Your task to perform on an android device: Open Google Chrome Image 0: 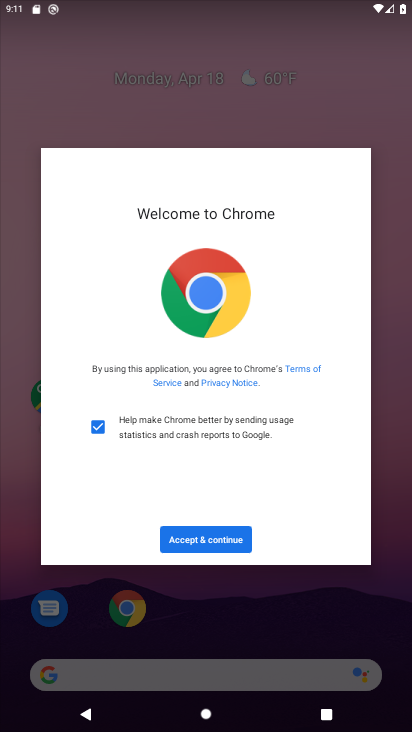
Step 0: press home button
Your task to perform on an android device: Open Google Chrome Image 1: 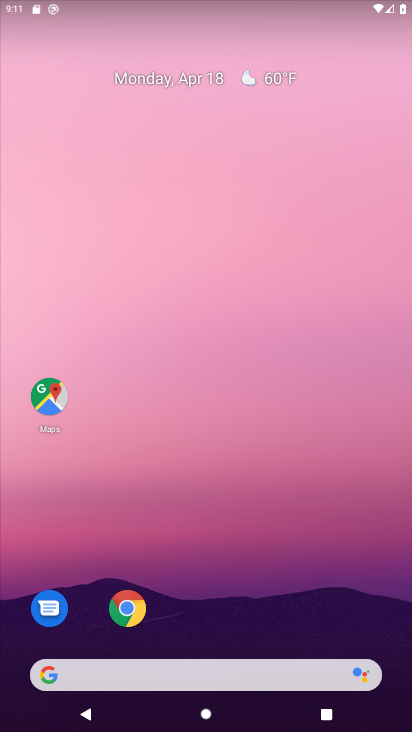
Step 1: click (137, 606)
Your task to perform on an android device: Open Google Chrome Image 2: 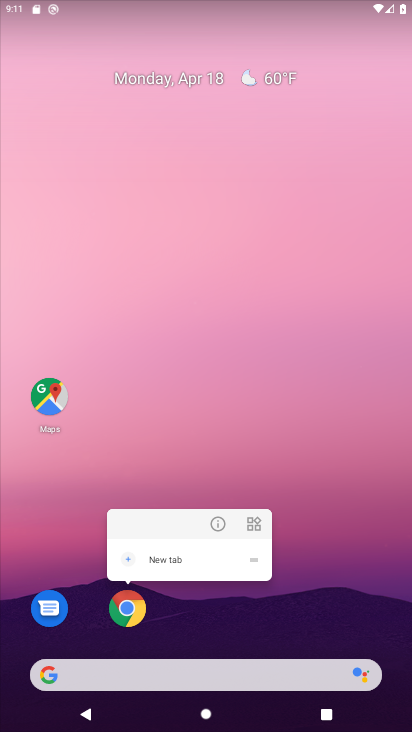
Step 2: click (138, 604)
Your task to perform on an android device: Open Google Chrome Image 3: 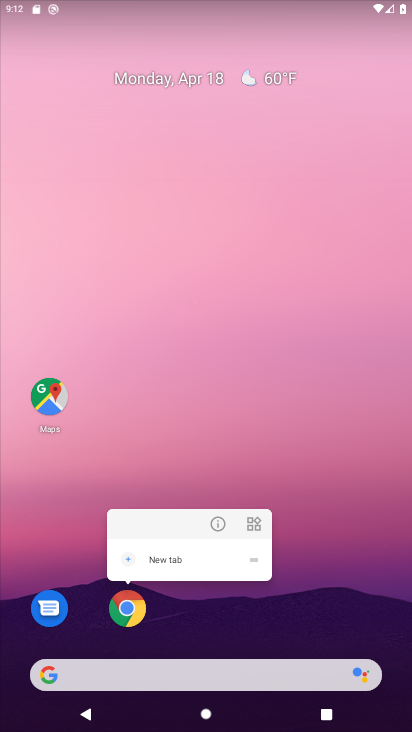
Step 3: click (137, 608)
Your task to perform on an android device: Open Google Chrome Image 4: 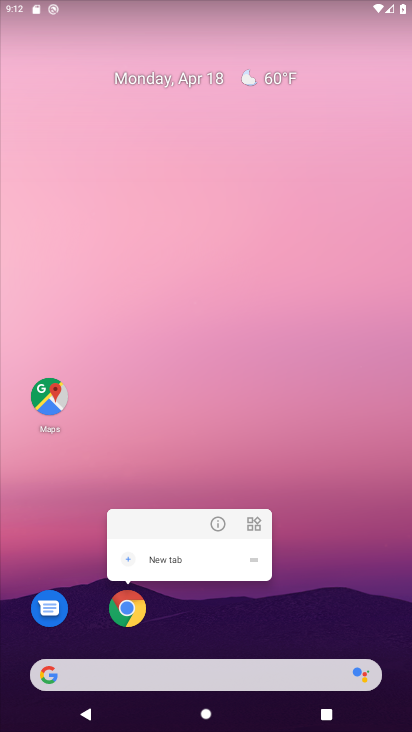
Step 4: drag from (302, 607) to (358, 173)
Your task to perform on an android device: Open Google Chrome Image 5: 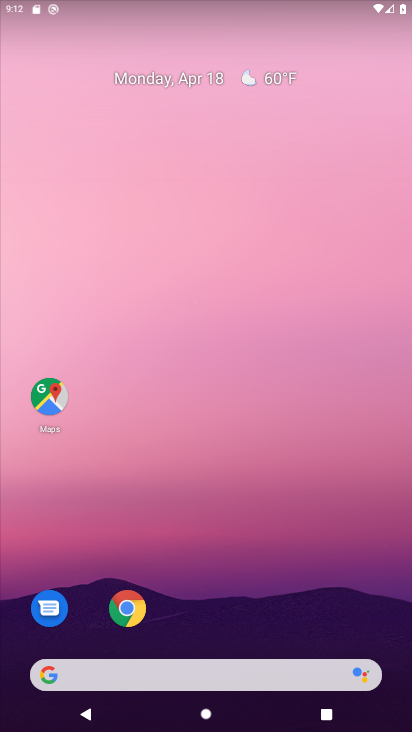
Step 5: drag from (350, 603) to (363, 135)
Your task to perform on an android device: Open Google Chrome Image 6: 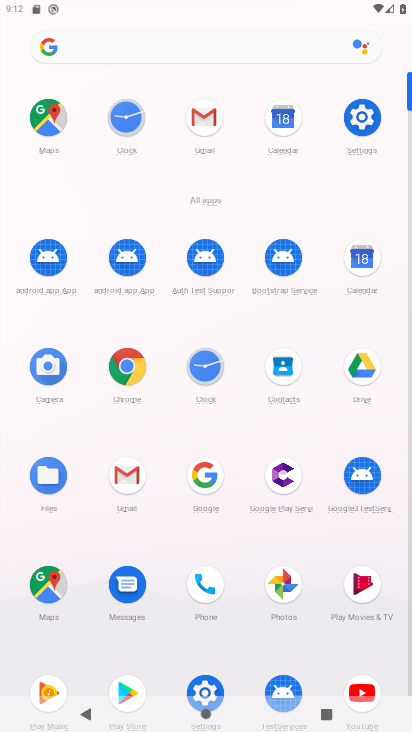
Step 6: click (114, 378)
Your task to perform on an android device: Open Google Chrome Image 7: 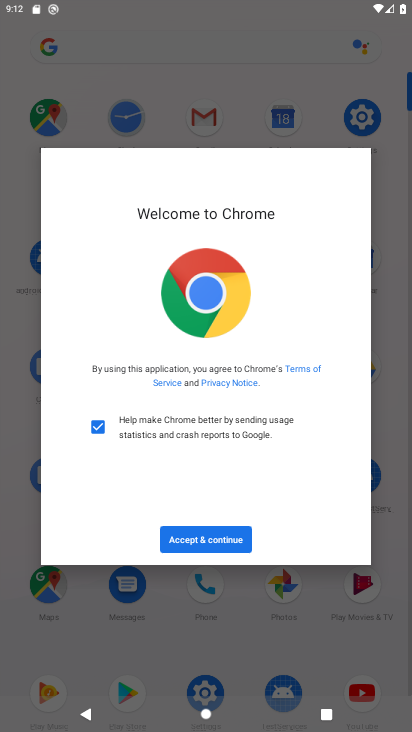
Step 7: click (225, 544)
Your task to perform on an android device: Open Google Chrome Image 8: 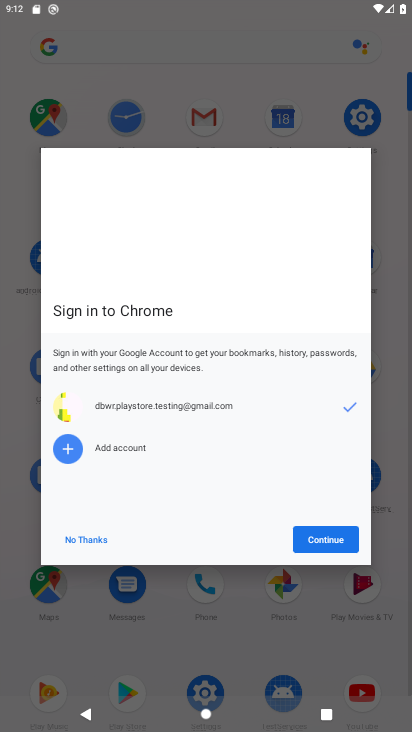
Step 8: click (318, 543)
Your task to perform on an android device: Open Google Chrome Image 9: 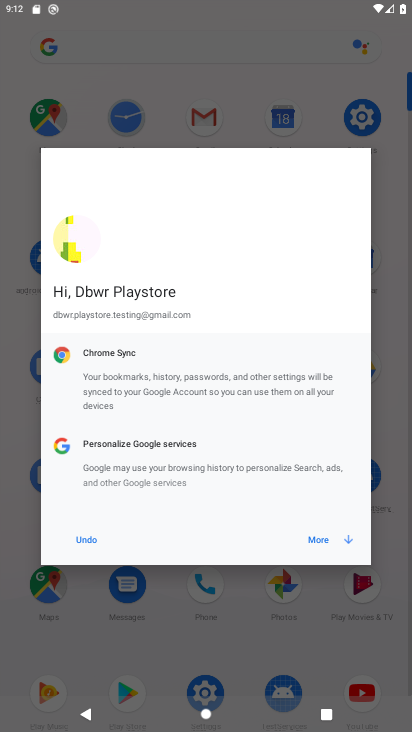
Step 9: click (315, 540)
Your task to perform on an android device: Open Google Chrome Image 10: 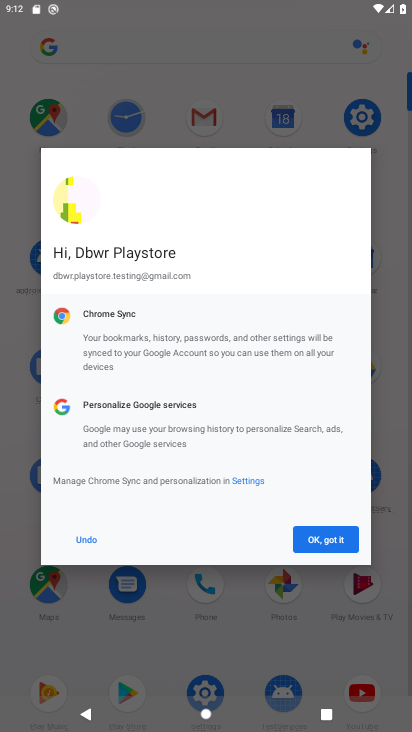
Step 10: click (314, 539)
Your task to perform on an android device: Open Google Chrome Image 11: 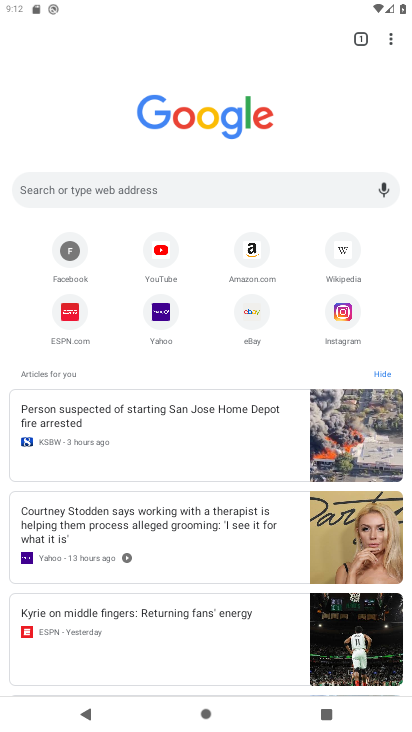
Step 11: task complete